Your task to perform on an android device: see sites visited before in the chrome app Image 0: 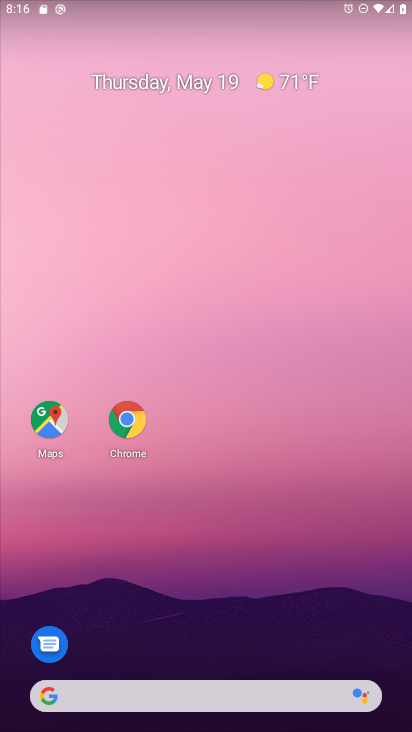
Step 0: click (127, 420)
Your task to perform on an android device: see sites visited before in the chrome app Image 1: 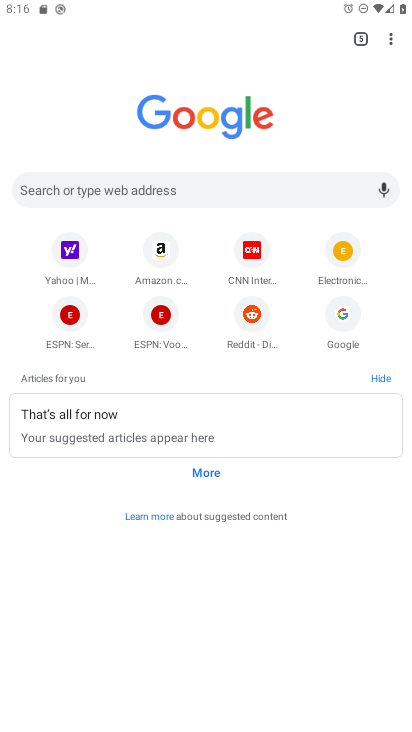
Step 1: click (199, 471)
Your task to perform on an android device: see sites visited before in the chrome app Image 2: 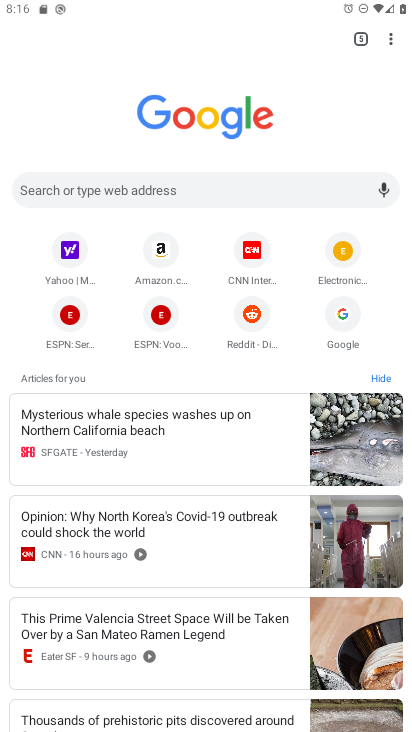
Step 2: task complete